Your task to perform on an android device: Open Google Maps and go to "Timeline" Image 0: 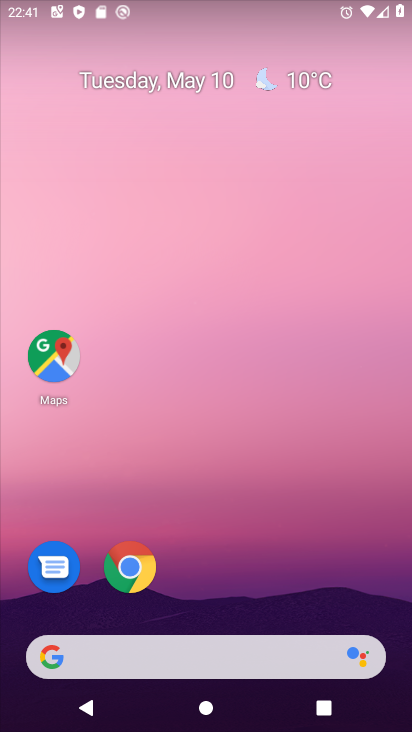
Step 0: click (61, 359)
Your task to perform on an android device: Open Google Maps and go to "Timeline" Image 1: 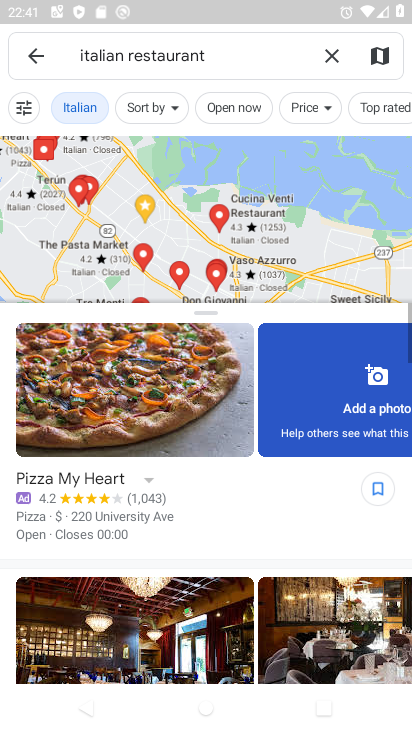
Step 1: click (329, 63)
Your task to perform on an android device: Open Google Maps and go to "Timeline" Image 2: 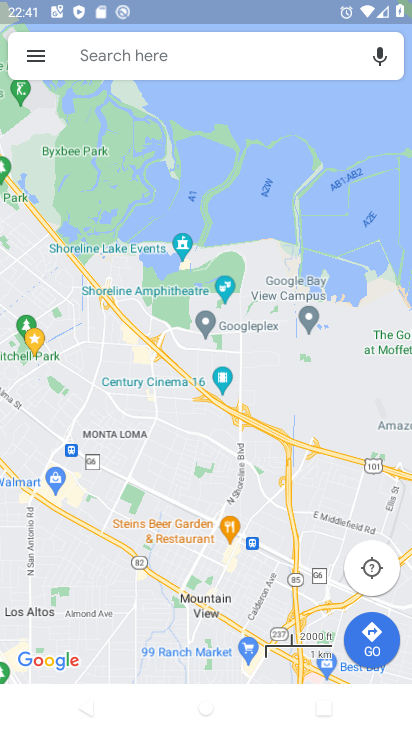
Step 2: click (36, 56)
Your task to perform on an android device: Open Google Maps and go to "Timeline" Image 3: 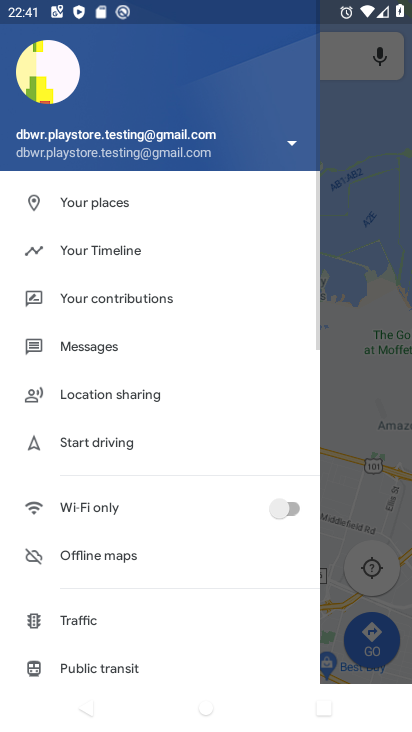
Step 3: click (51, 248)
Your task to perform on an android device: Open Google Maps and go to "Timeline" Image 4: 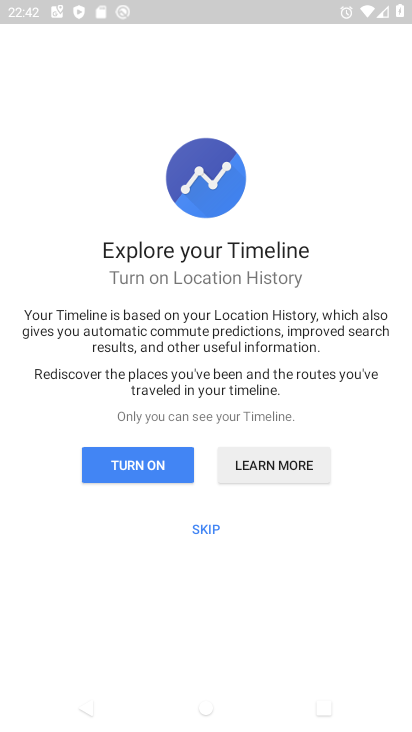
Step 4: click (211, 529)
Your task to perform on an android device: Open Google Maps and go to "Timeline" Image 5: 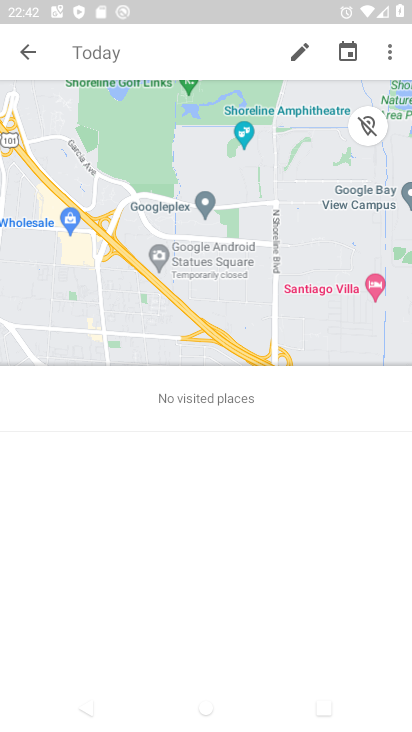
Step 5: task complete